Your task to perform on an android device: Open Google Image 0: 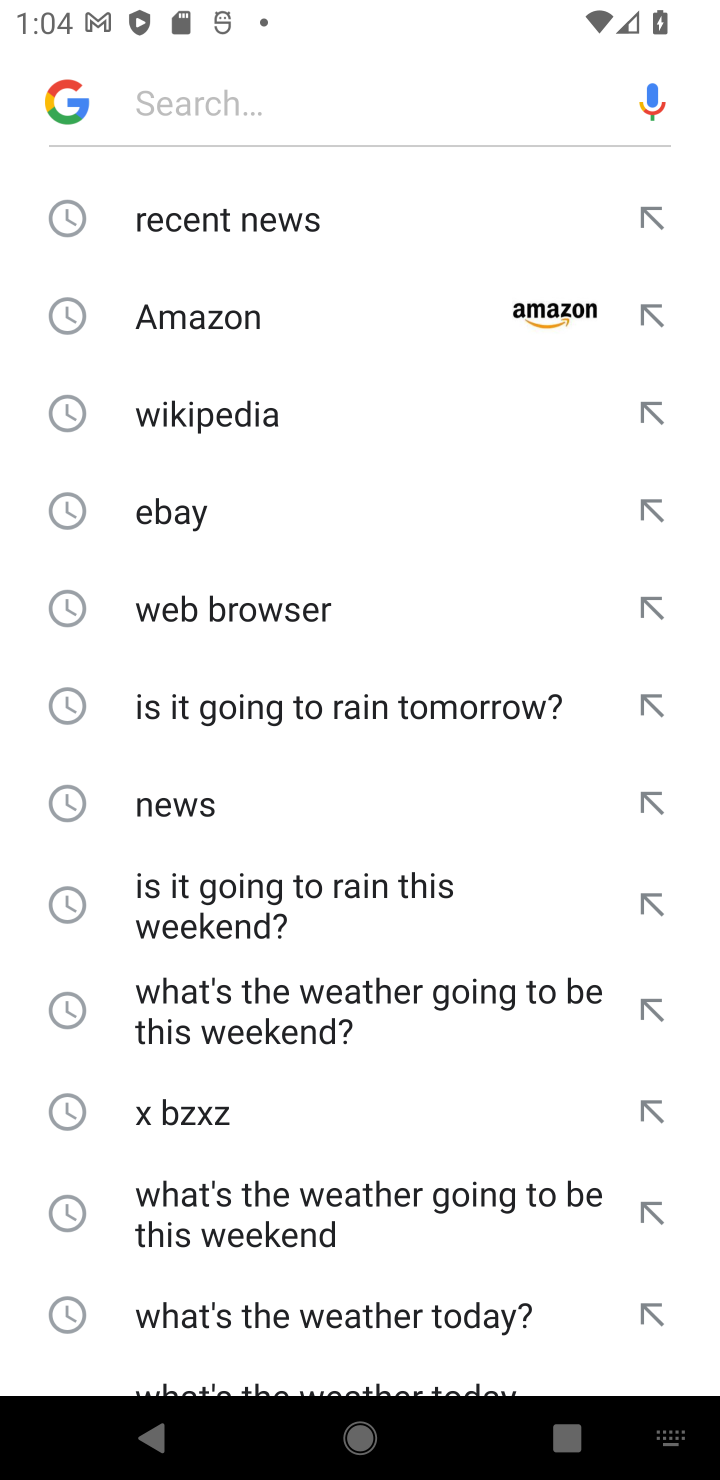
Step 0: press home button
Your task to perform on an android device: Open Google Image 1: 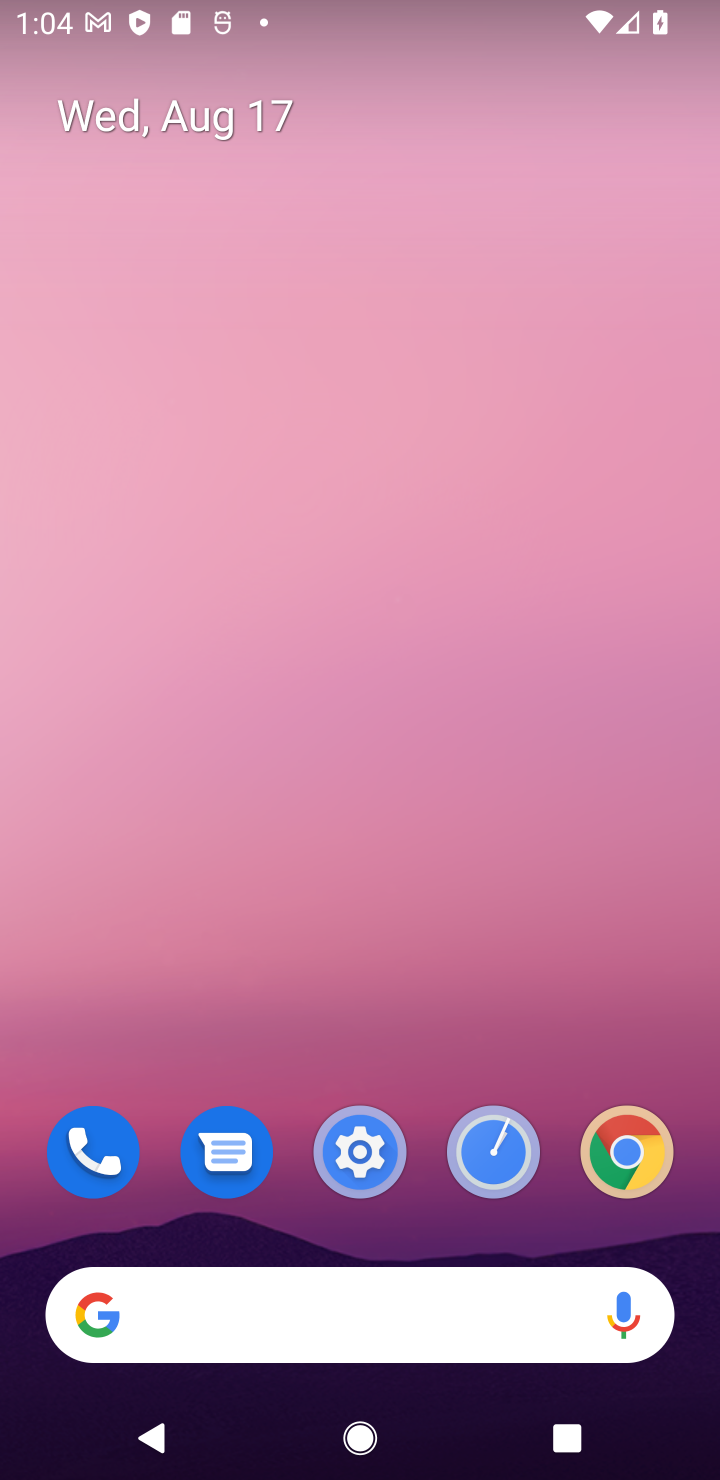
Step 1: drag from (582, 1246) to (190, 28)
Your task to perform on an android device: Open Google Image 2: 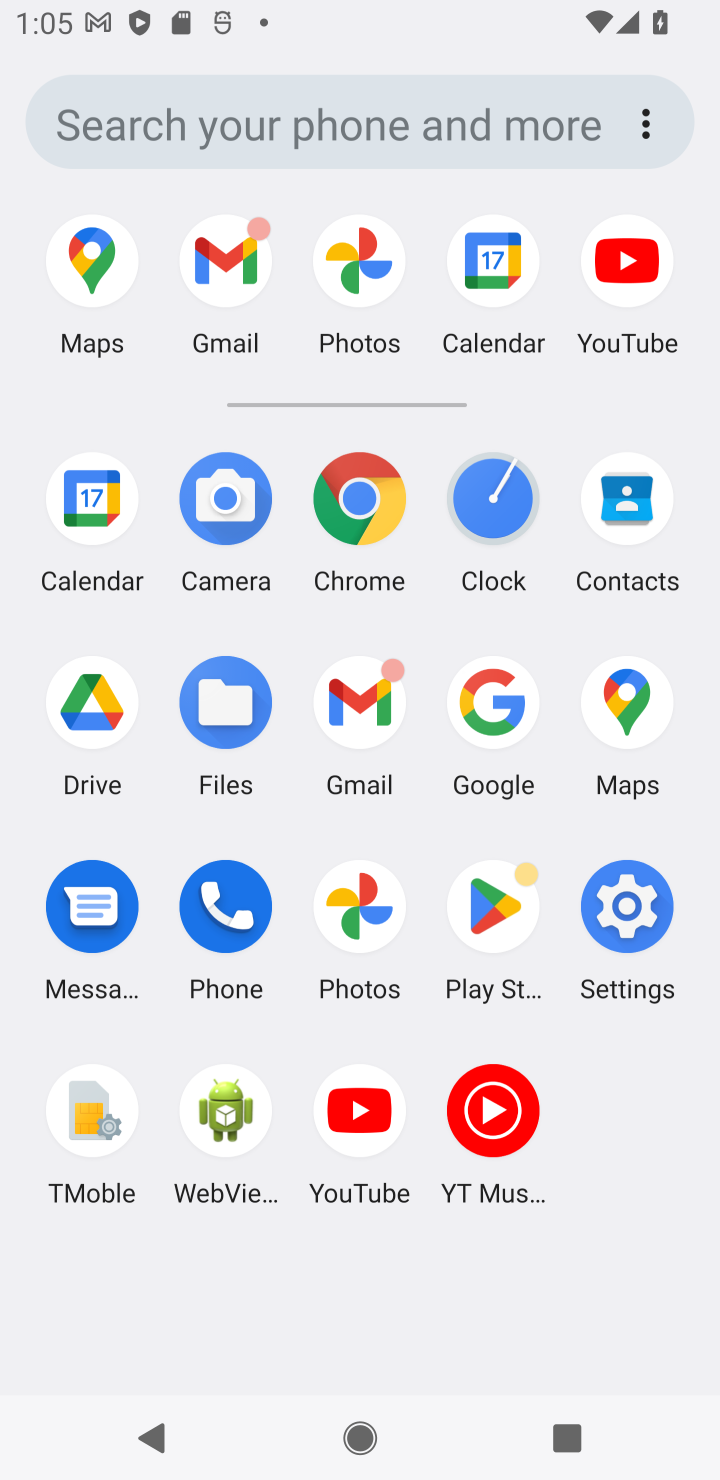
Step 2: click (473, 723)
Your task to perform on an android device: Open Google Image 3: 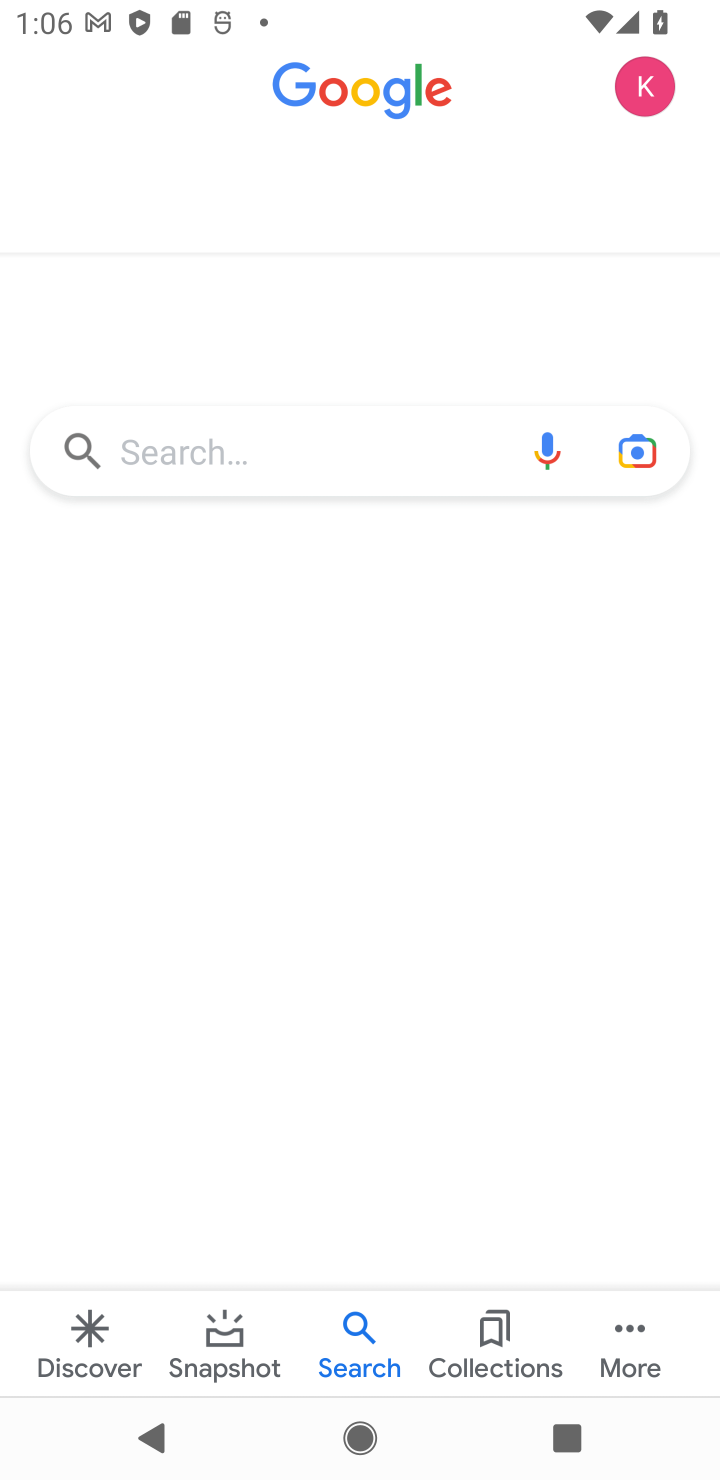
Step 3: task complete